Your task to perform on an android device: visit the assistant section in the google photos Image 0: 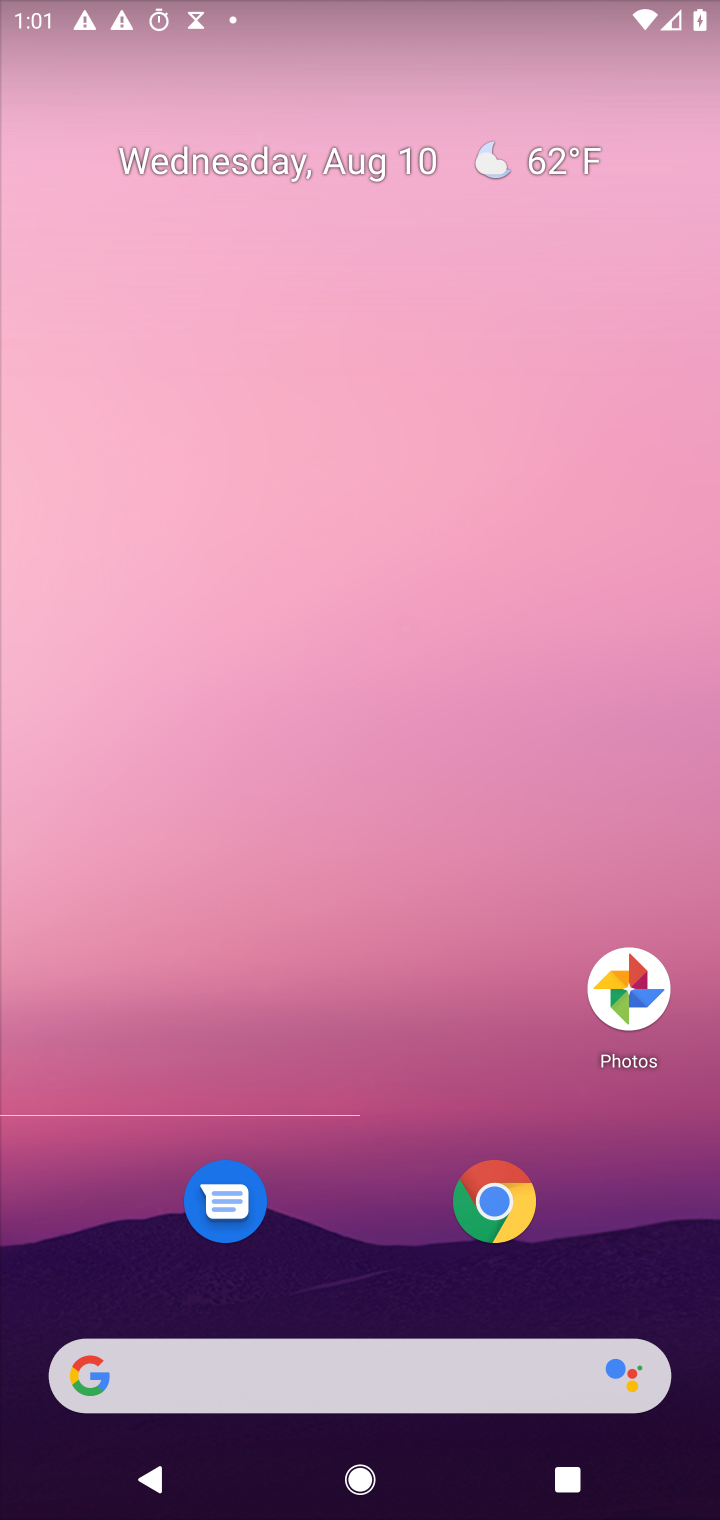
Step 0: press home button
Your task to perform on an android device: visit the assistant section in the google photos Image 1: 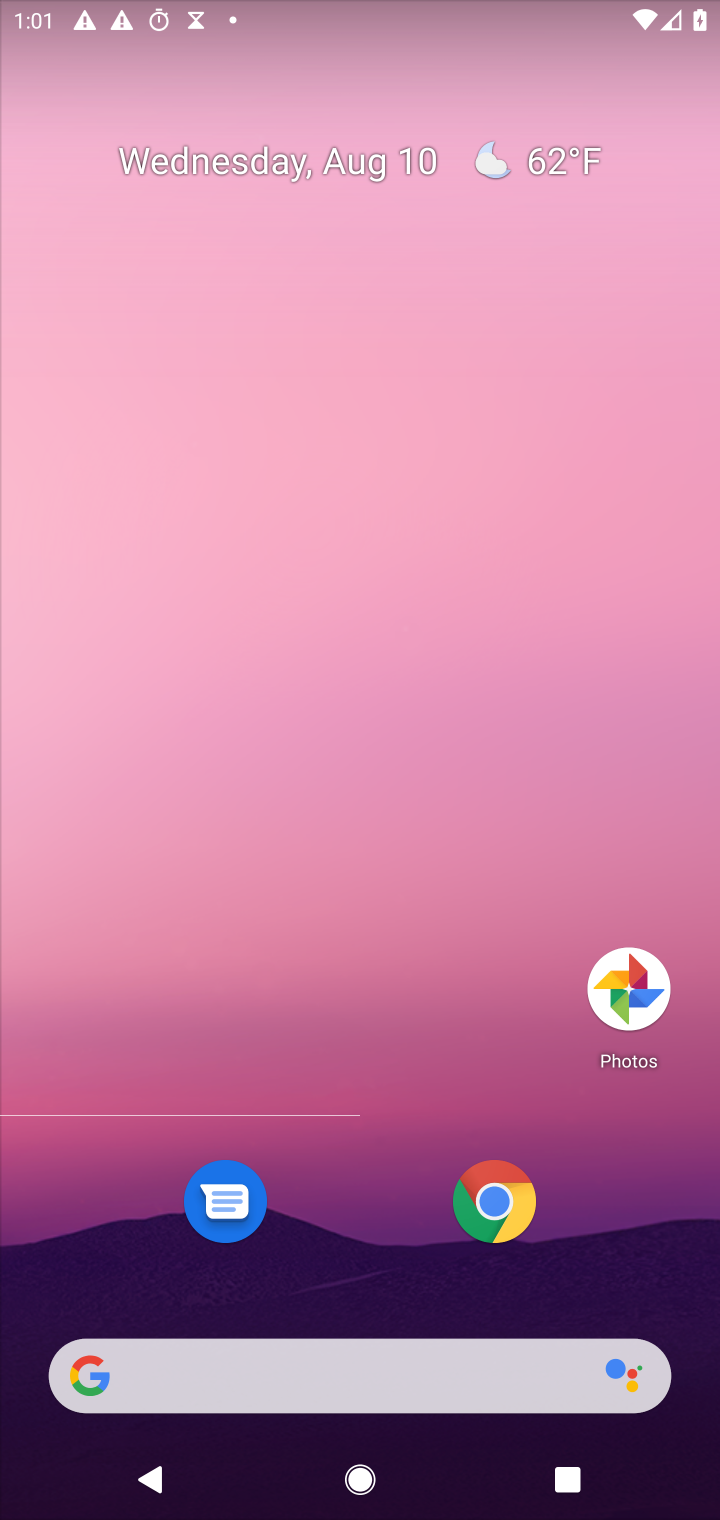
Step 1: click (273, 247)
Your task to perform on an android device: visit the assistant section in the google photos Image 2: 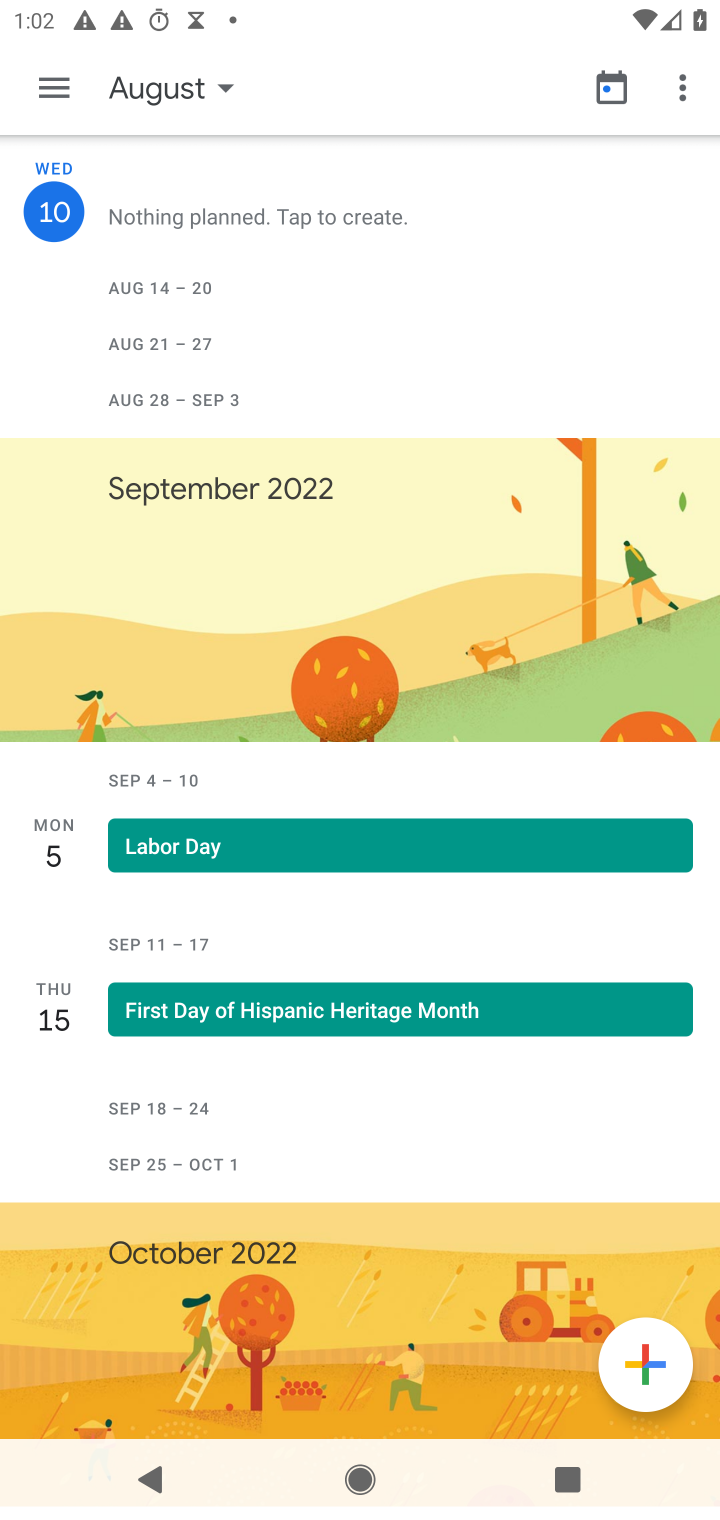
Step 2: press home button
Your task to perform on an android device: visit the assistant section in the google photos Image 3: 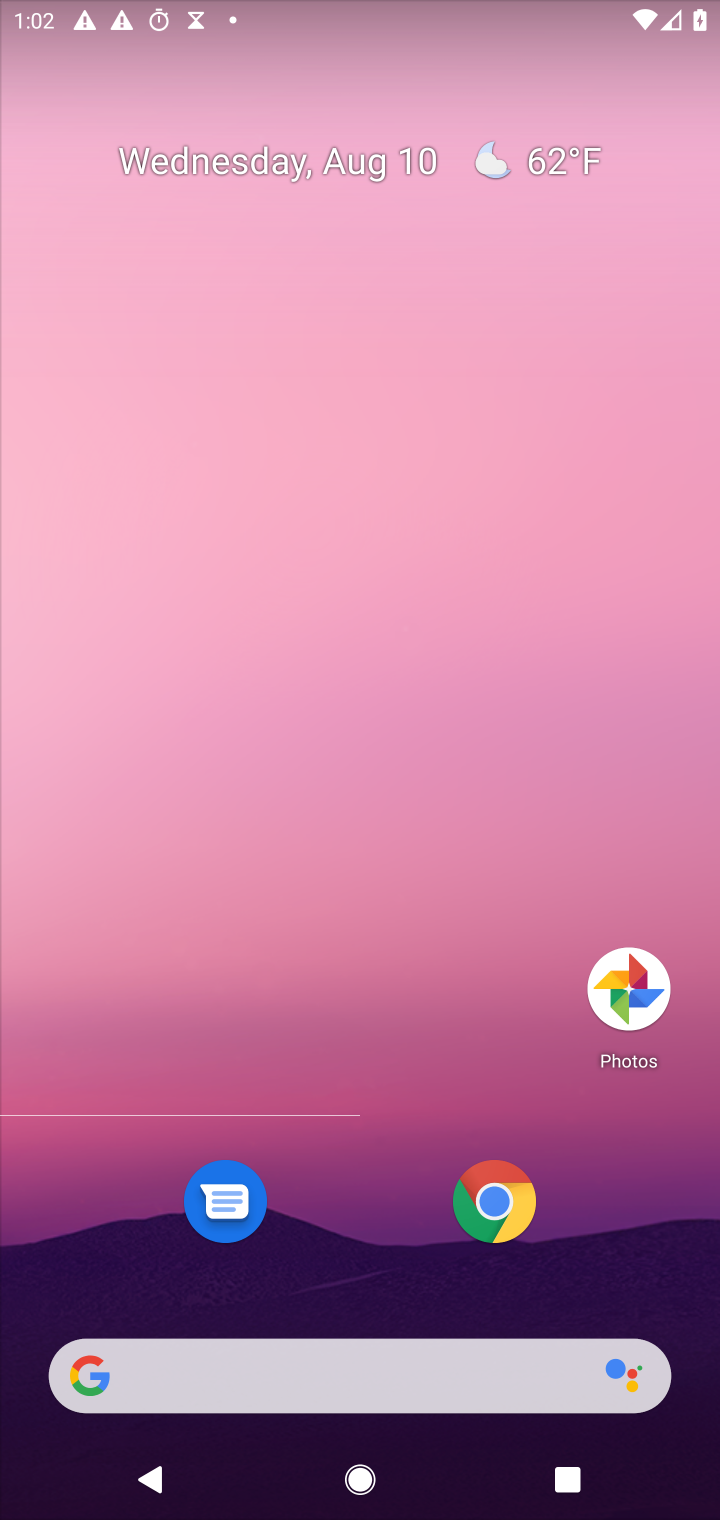
Step 3: click (375, 318)
Your task to perform on an android device: visit the assistant section in the google photos Image 4: 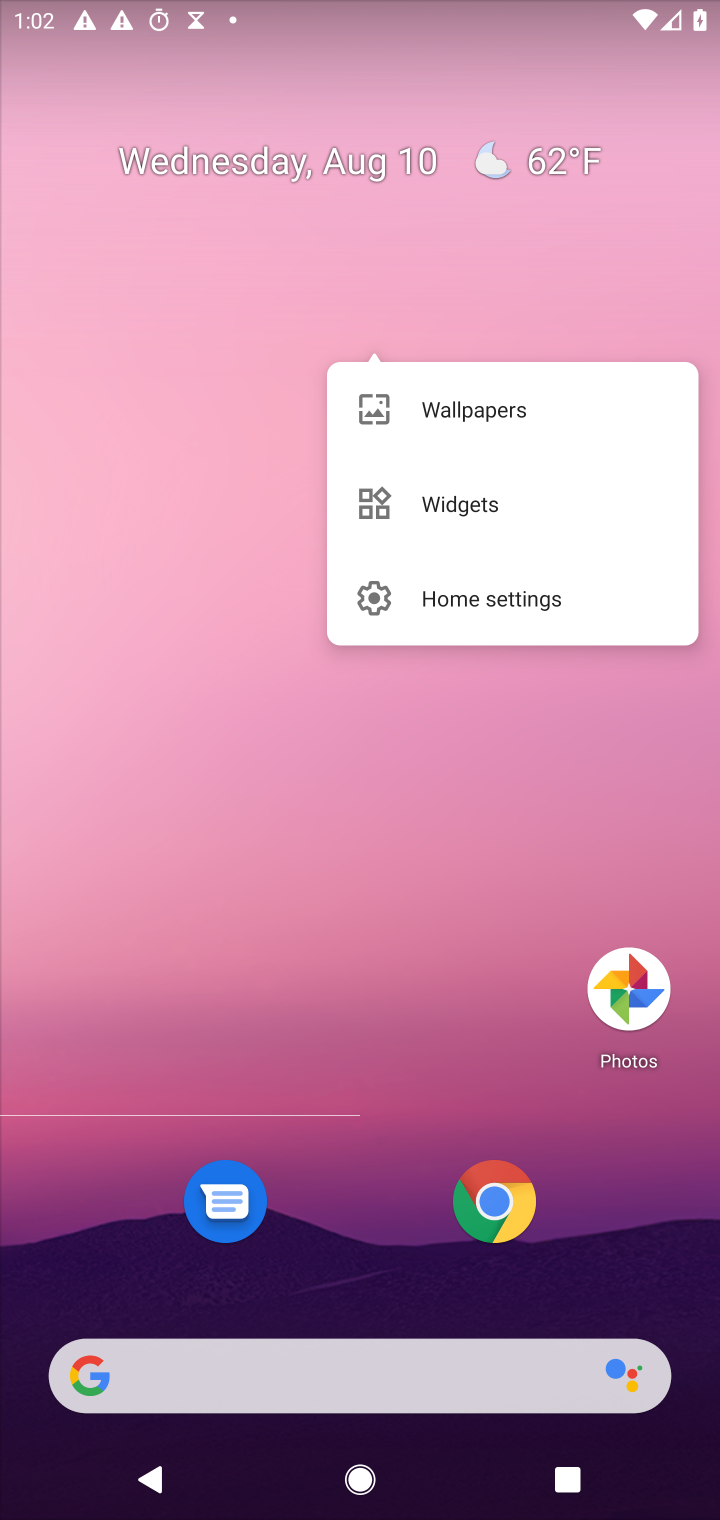
Step 4: drag from (284, 173) to (284, 101)
Your task to perform on an android device: visit the assistant section in the google photos Image 5: 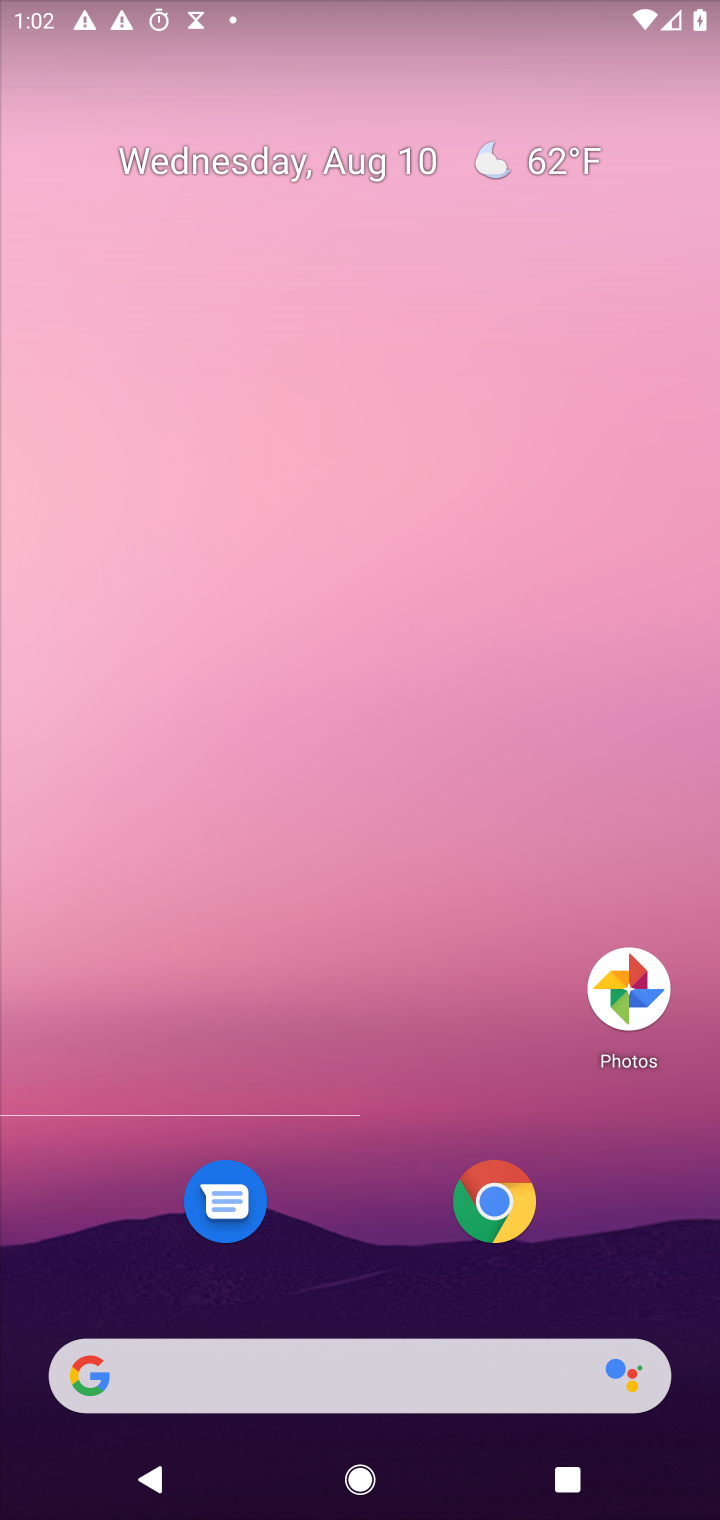
Step 5: drag from (351, 870) to (513, 10)
Your task to perform on an android device: visit the assistant section in the google photos Image 6: 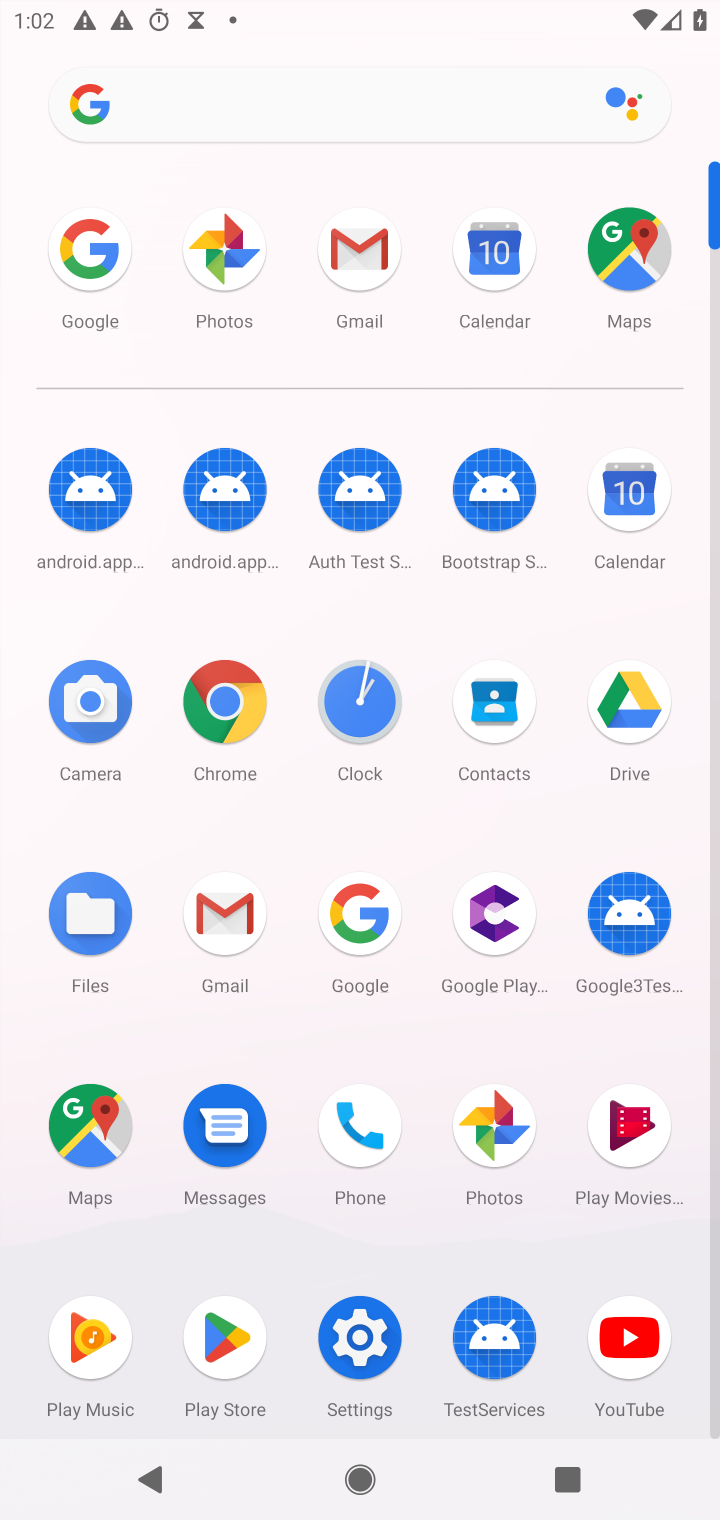
Step 6: click (502, 1119)
Your task to perform on an android device: visit the assistant section in the google photos Image 7: 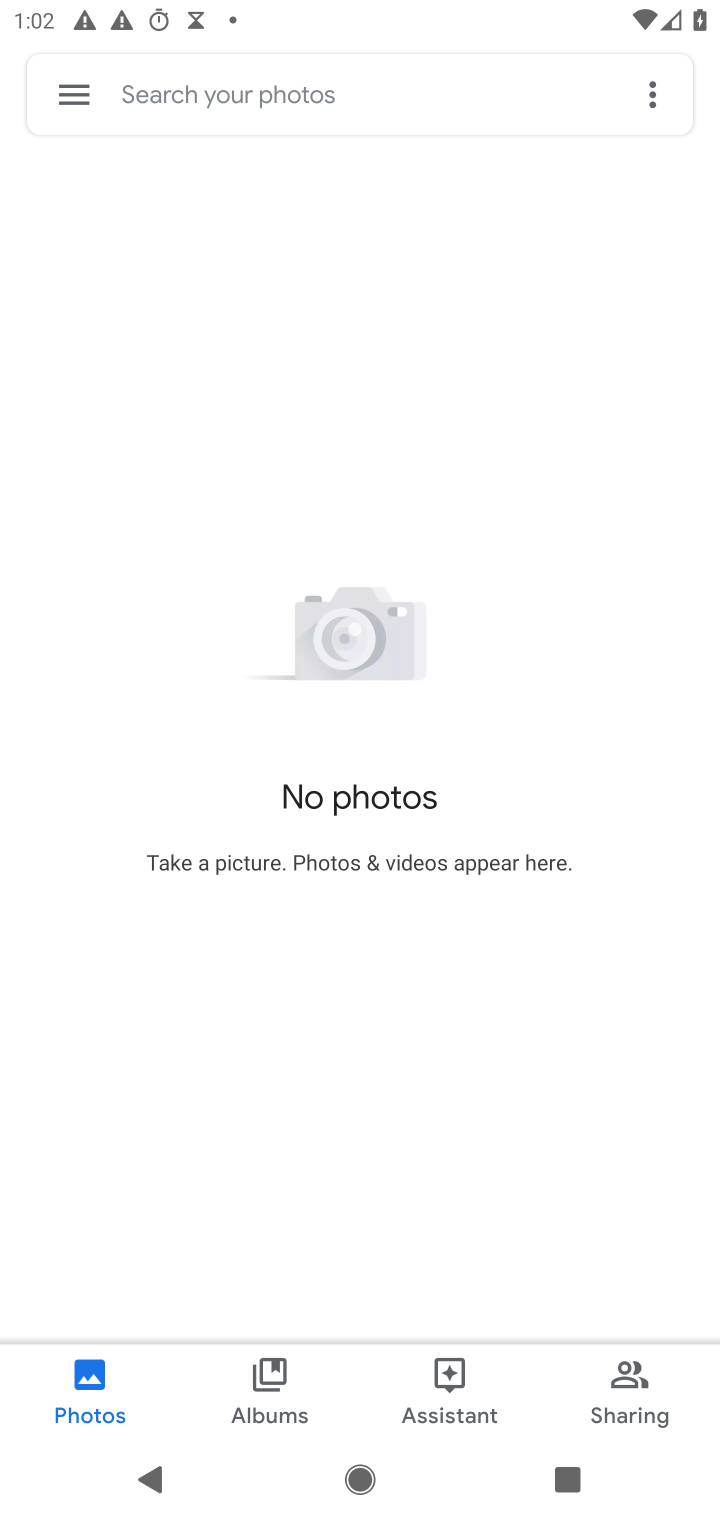
Step 7: click (260, 1378)
Your task to perform on an android device: visit the assistant section in the google photos Image 8: 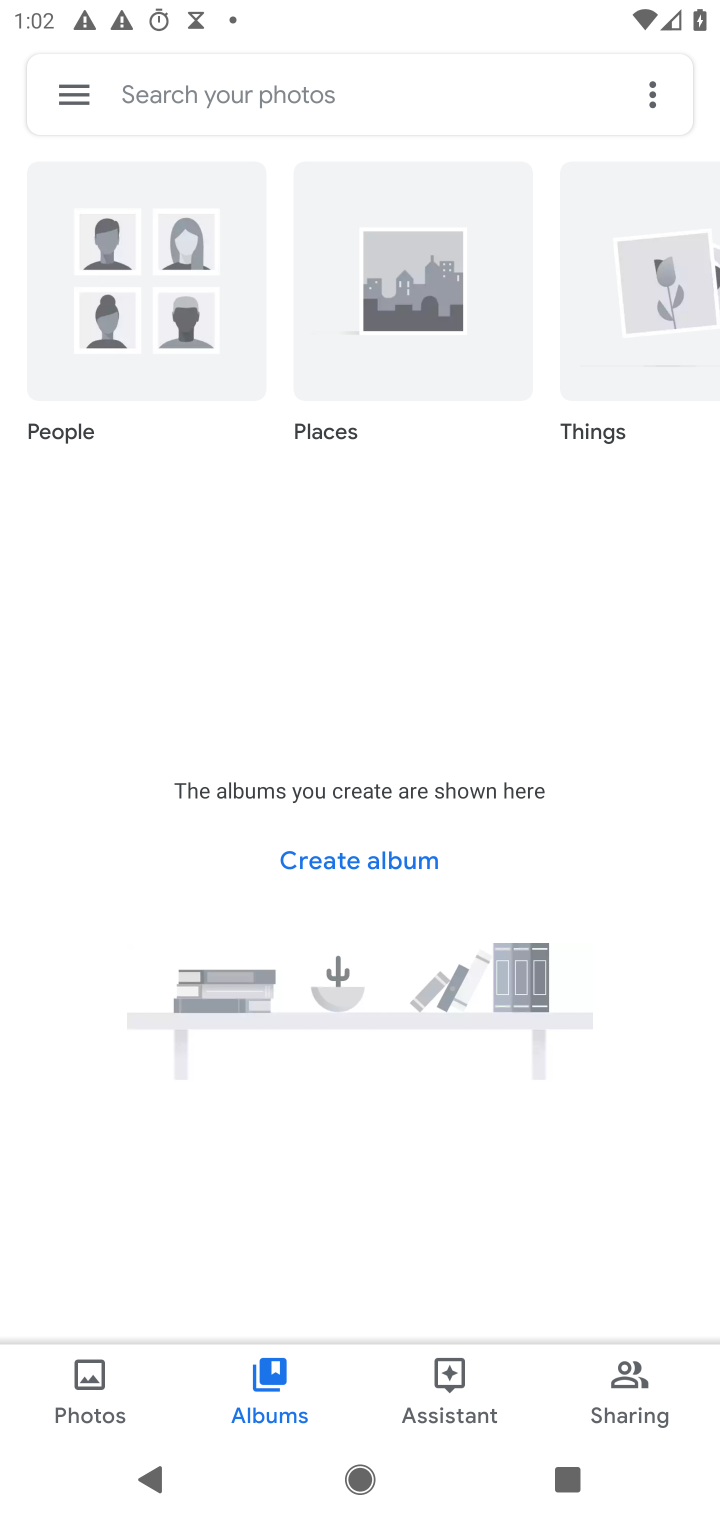
Step 8: drag from (645, 334) to (31, 264)
Your task to perform on an android device: visit the assistant section in the google photos Image 9: 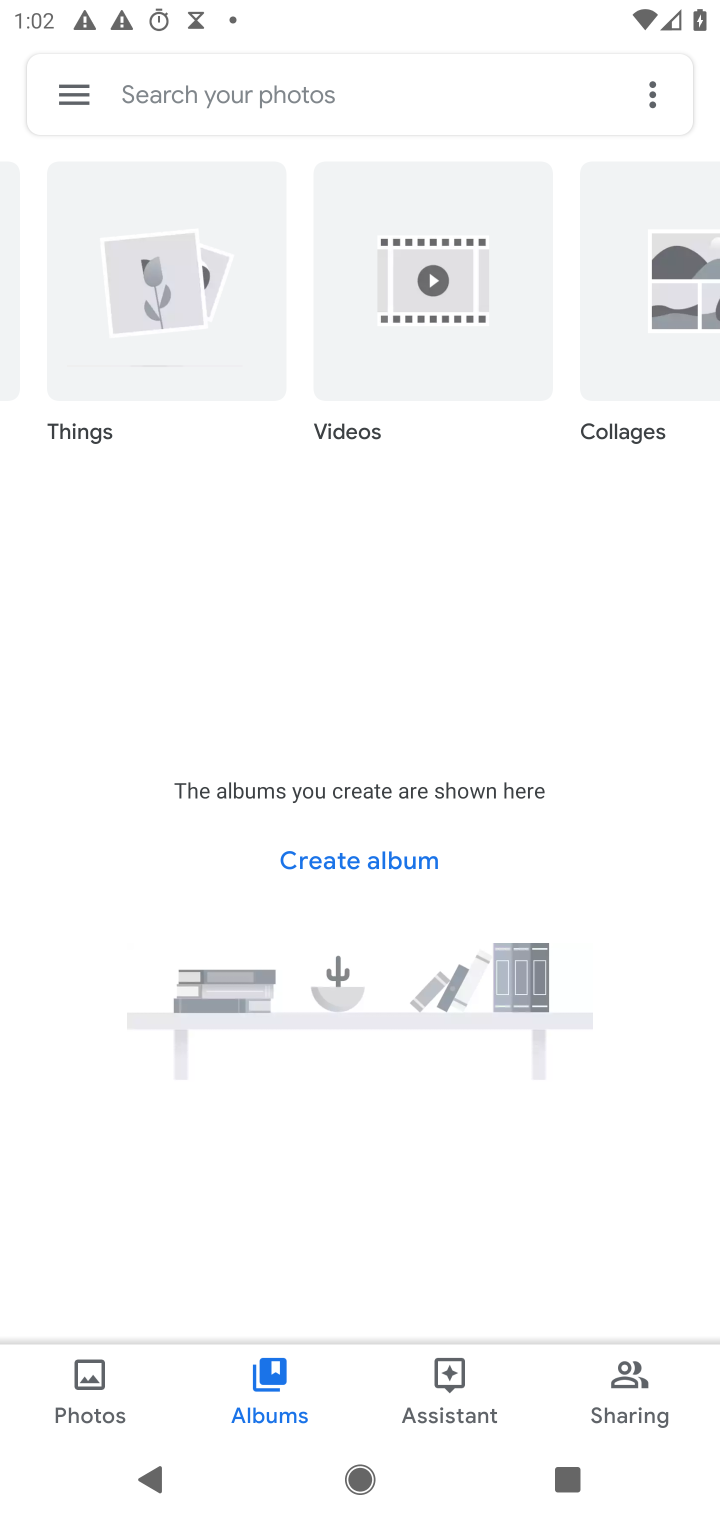
Step 9: click (84, 1386)
Your task to perform on an android device: visit the assistant section in the google photos Image 10: 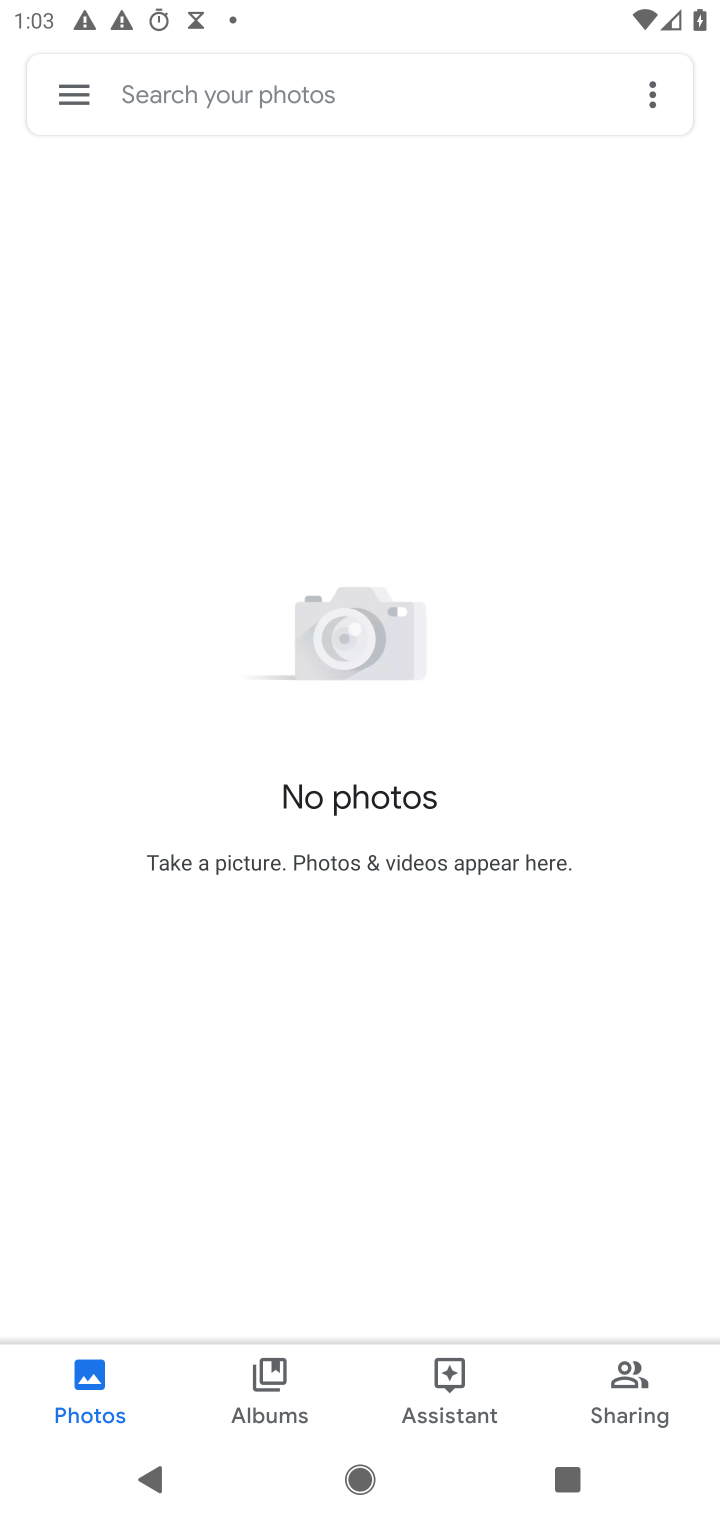
Step 10: click (452, 1365)
Your task to perform on an android device: visit the assistant section in the google photos Image 11: 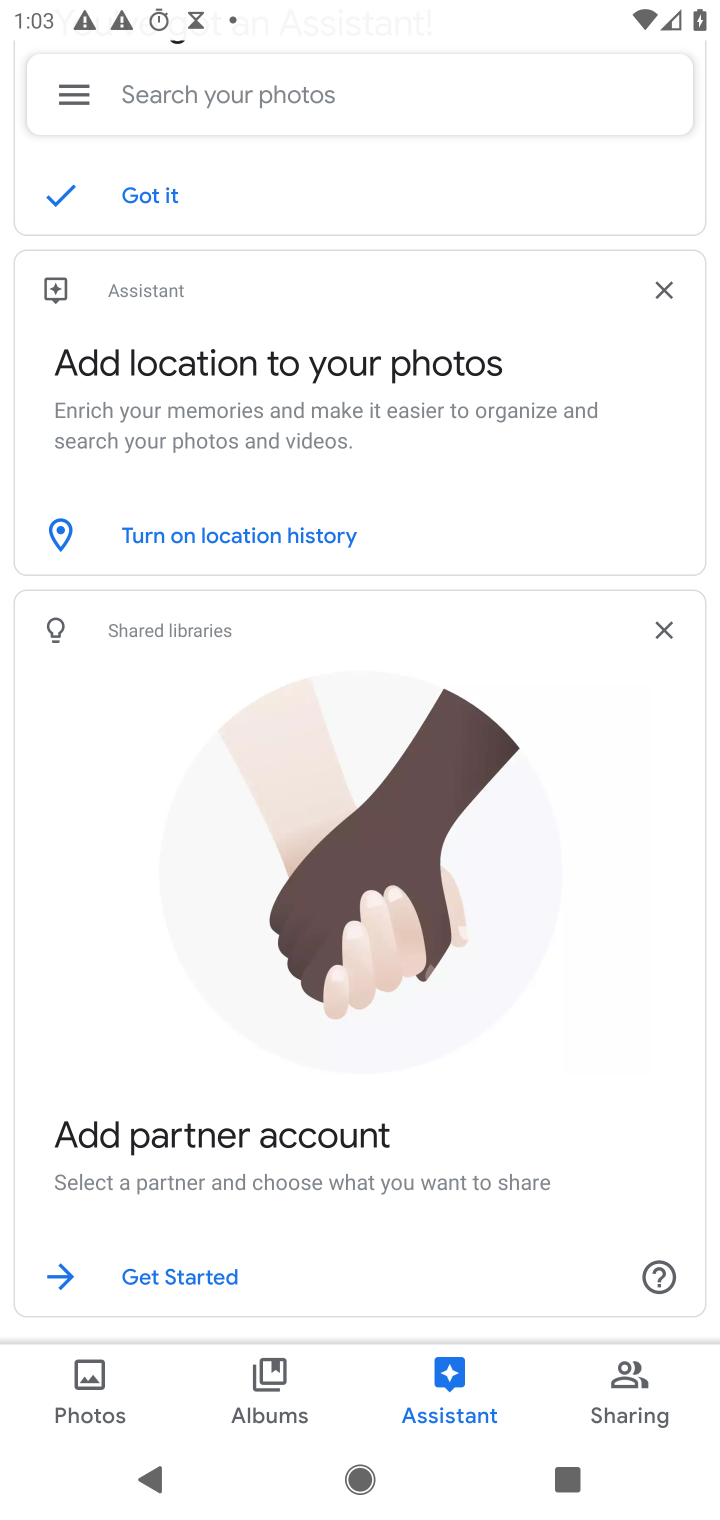
Step 11: task complete